Your task to perform on an android device: Open a new Chrome incognito window Image 0: 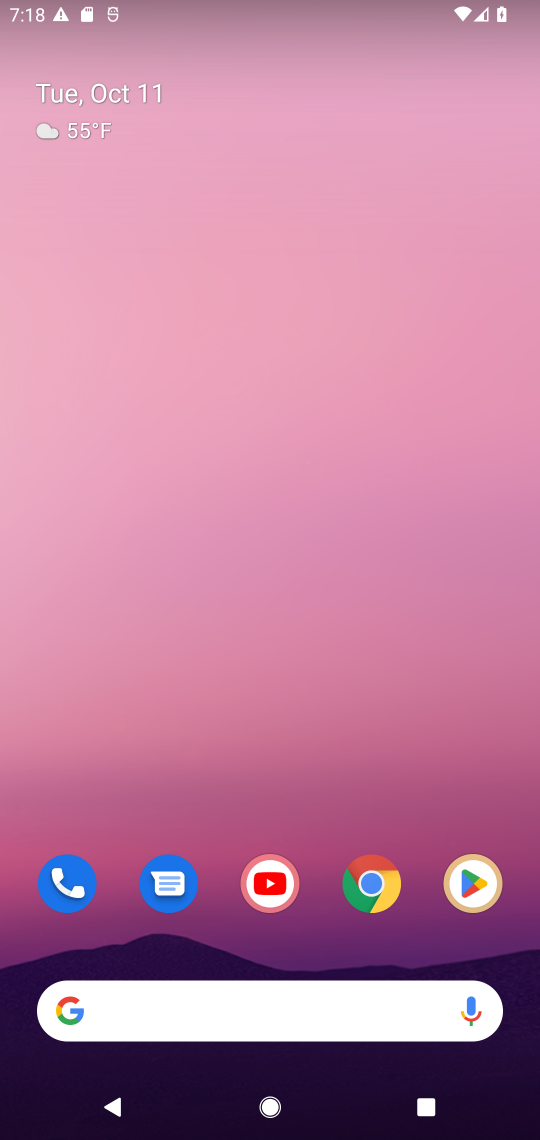
Step 0: drag from (325, 853) to (274, 125)
Your task to perform on an android device: Open a new Chrome incognito window Image 1: 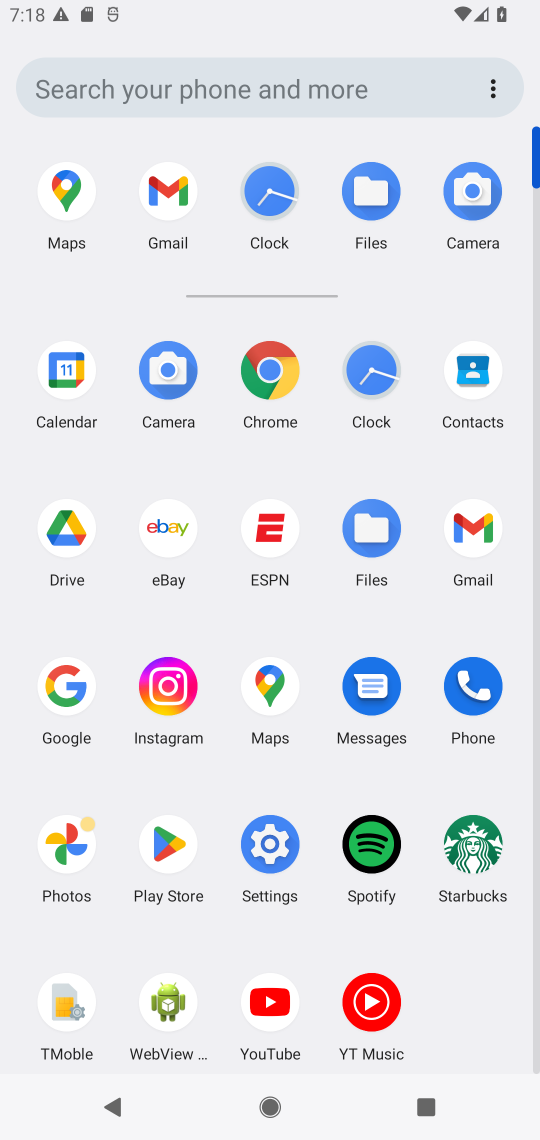
Step 1: click (262, 371)
Your task to perform on an android device: Open a new Chrome incognito window Image 2: 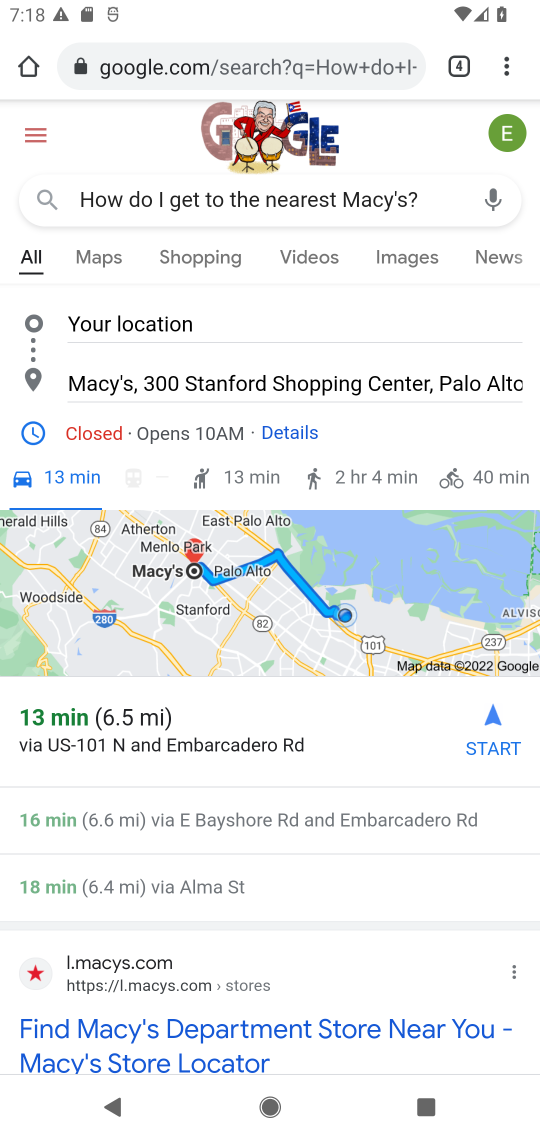
Step 2: task complete